Your task to perform on an android device: search for starred emails in the gmail app Image 0: 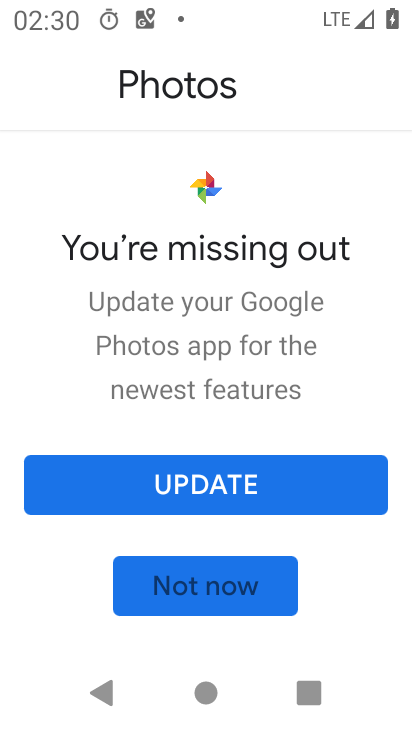
Step 0: press home button
Your task to perform on an android device: search for starred emails in the gmail app Image 1: 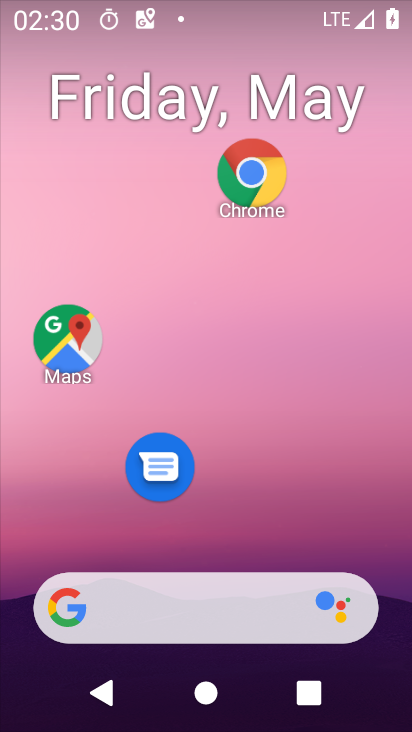
Step 1: drag from (256, 616) to (306, 300)
Your task to perform on an android device: search for starred emails in the gmail app Image 2: 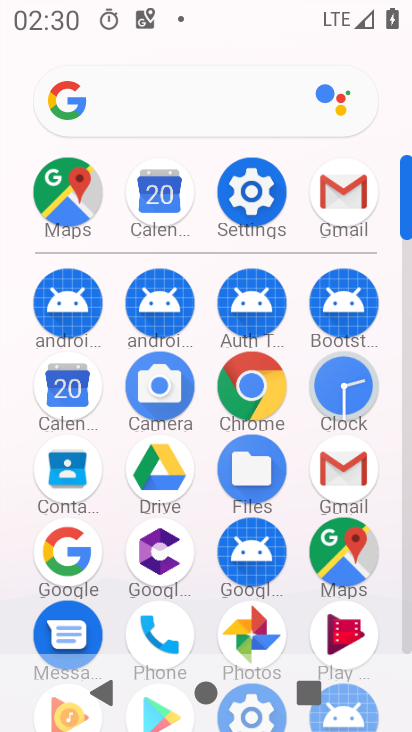
Step 2: click (323, 473)
Your task to perform on an android device: search for starred emails in the gmail app Image 3: 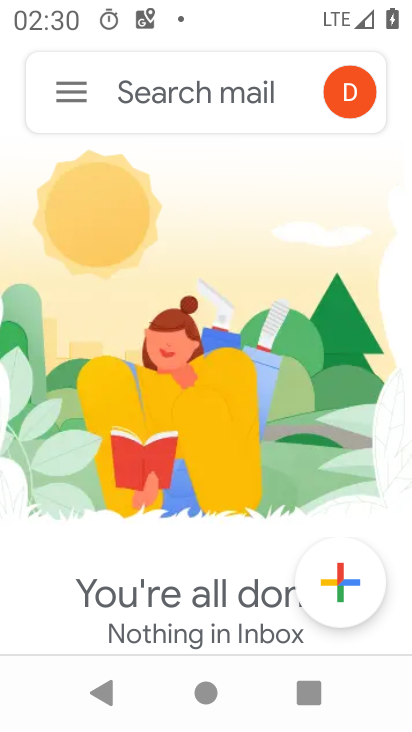
Step 3: click (66, 100)
Your task to perform on an android device: search for starred emails in the gmail app Image 4: 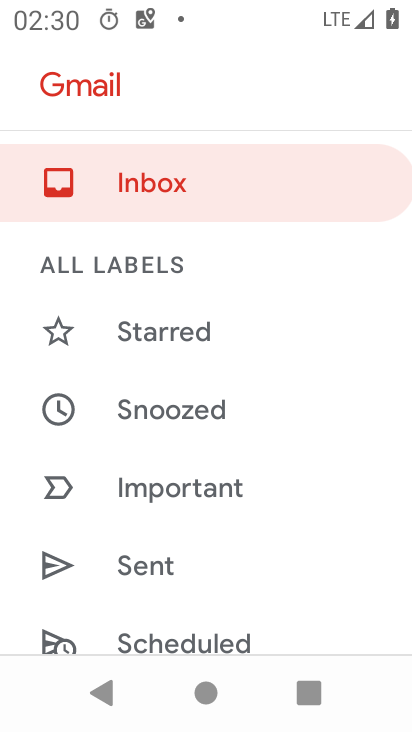
Step 4: click (194, 339)
Your task to perform on an android device: search for starred emails in the gmail app Image 5: 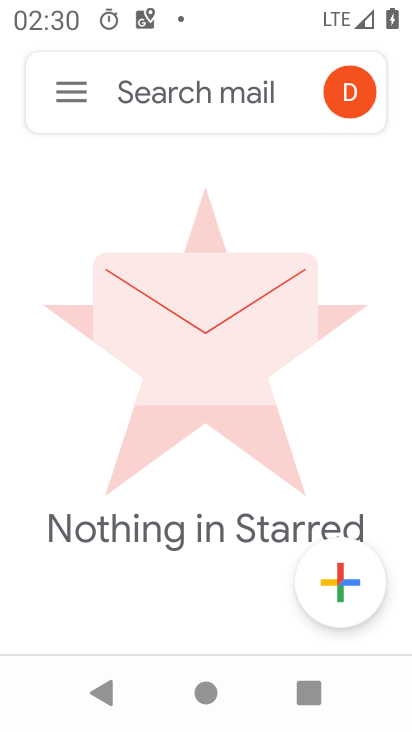
Step 5: task complete